Your task to perform on an android device: Go to accessibility settings Image 0: 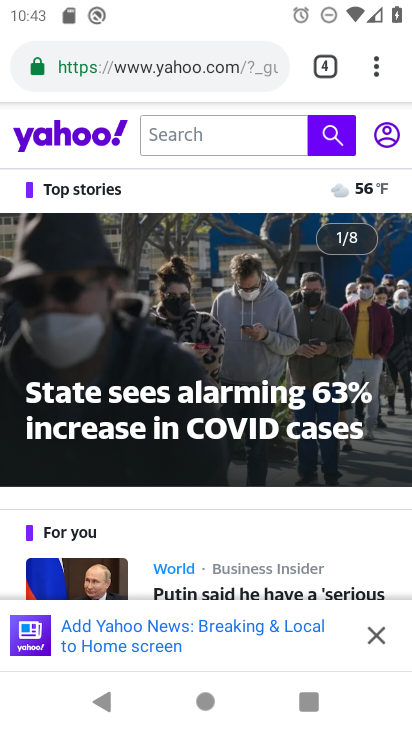
Step 0: press home button
Your task to perform on an android device: Go to accessibility settings Image 1: 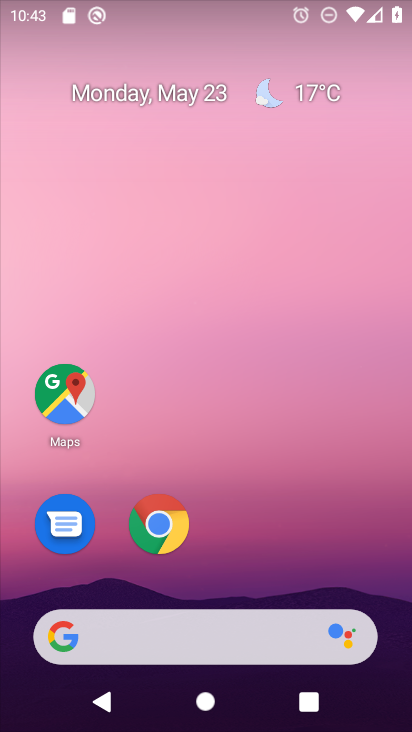
Step 1: drag from (231, 590) to (235, 177)
Your task to perform on an android device: Go to accessibility settings Image 2: 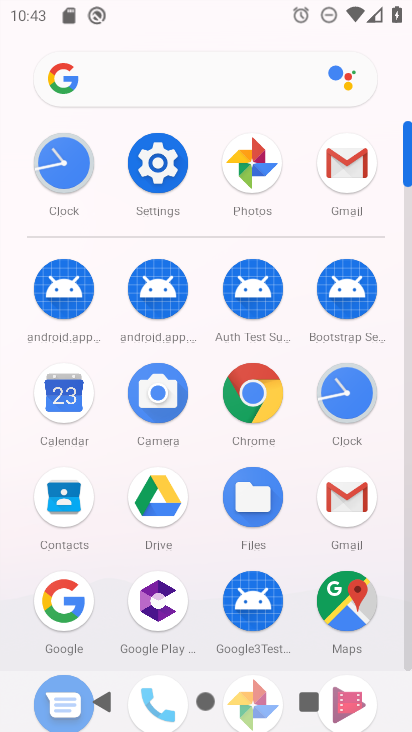
Step 2: click (158, 182)
Your task to perform on an android device: Go to accessibility settings Image 3: 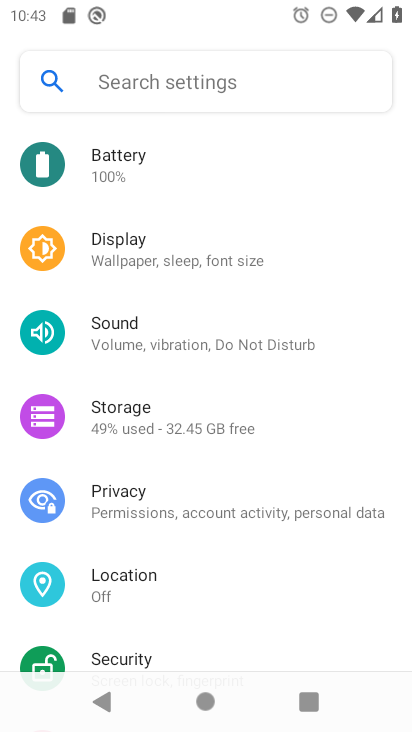
Step 3: drag from (249, 593) to (261, 305)
Your task to perform on an android device: Go to accessibility settings Image 4: 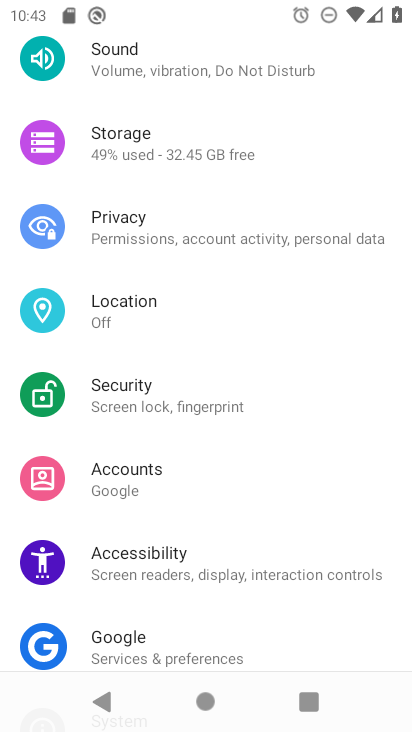
Step 4: click (220, 546)
Your task to perform on an android device: Go to accessibility settings Image 5: 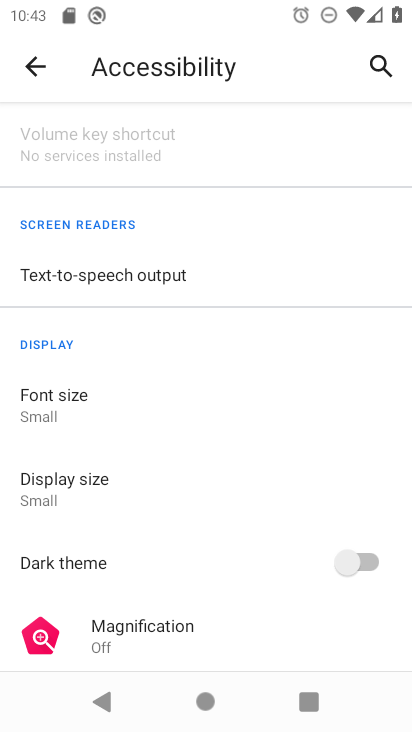
Step 5: task complete